Your task to perform on an android device: open a bookmark in the chrome app Image 0: 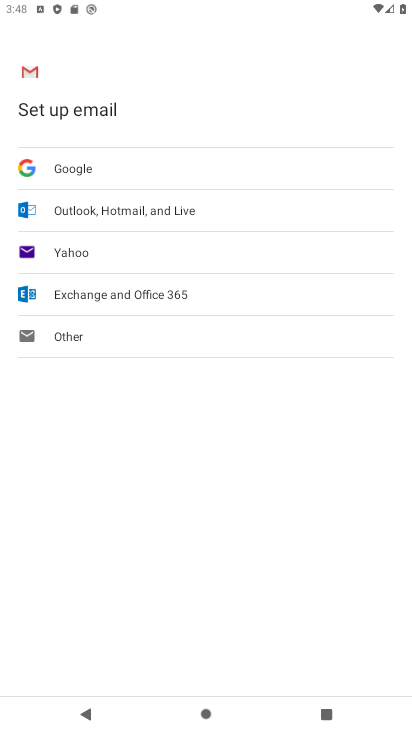
Step 0: press home button
Your task to perform on an android device: open a bookmark in the chrome app Image 1: 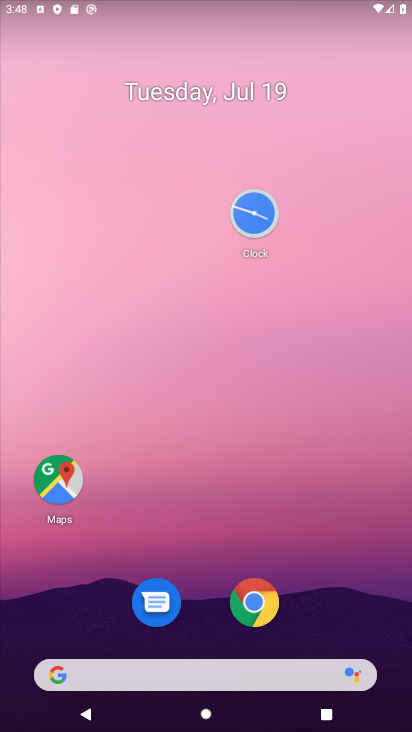
Step 1: click (260, 594)
Your task to perform on an android device: open a bookmark in the chrome app Image 2: 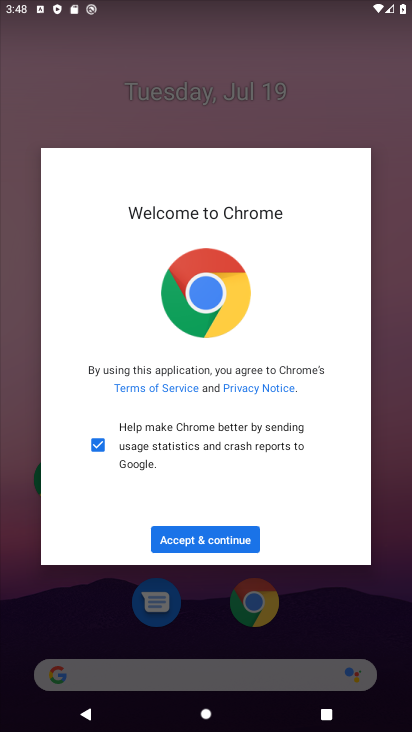
Step 2: click (231, 541)
Your task to perform on an android device: open a bookmark in the chrome app Image 3: 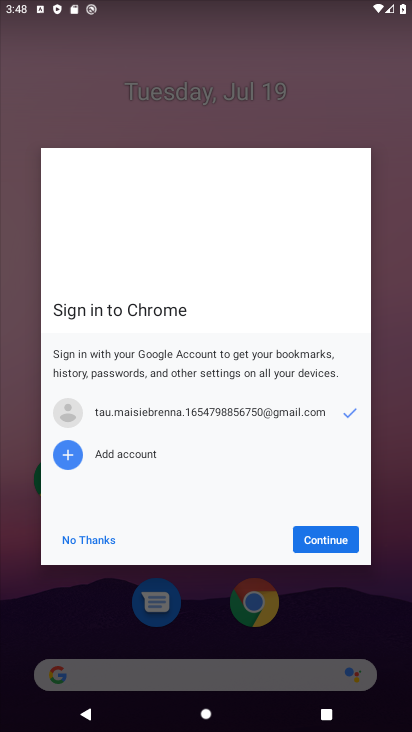
Step 3: click (344, 531)
Your task to perform on an android device: open a bookmark in the chrome app Image 4: 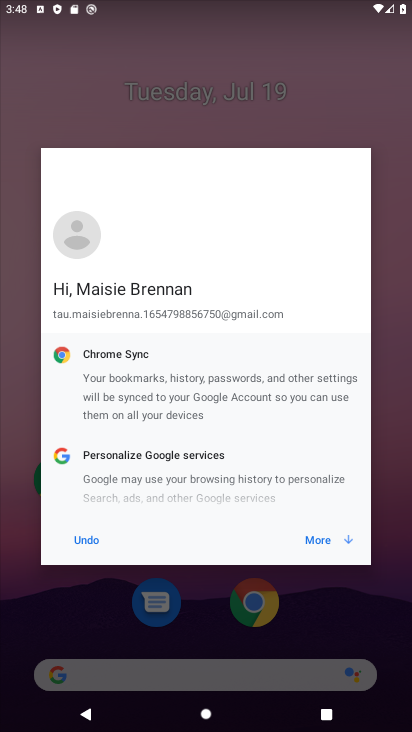
Step 4: click (318, 537)
Your task to perform on an android device: open a bookmark in the chrome app Image 5: 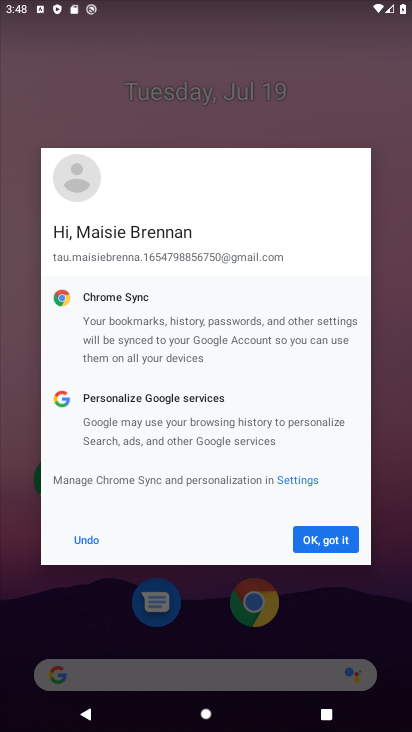
Step 5: click (318, 537)
Your task to perform on an android device: open a bookmark in the chrome app Image 6: 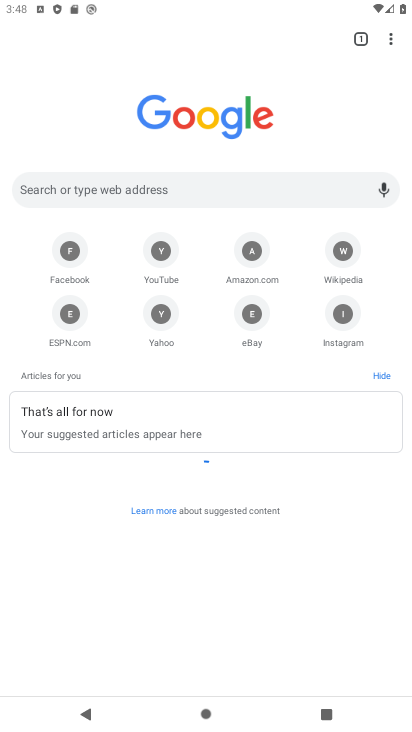
Step 6: click (388, 27)
Your task to perform on an android device: open a bookmark in the chrome app Image 7: 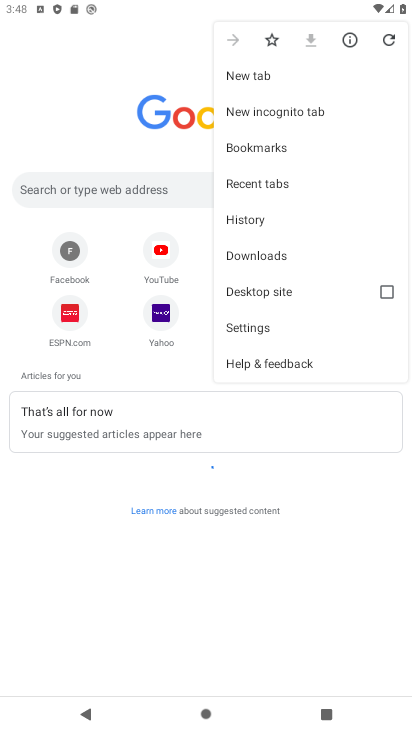
Step 7: click (261, 140)
Your task to perform on an android device: open a bookmark in the chrome app Image 8: 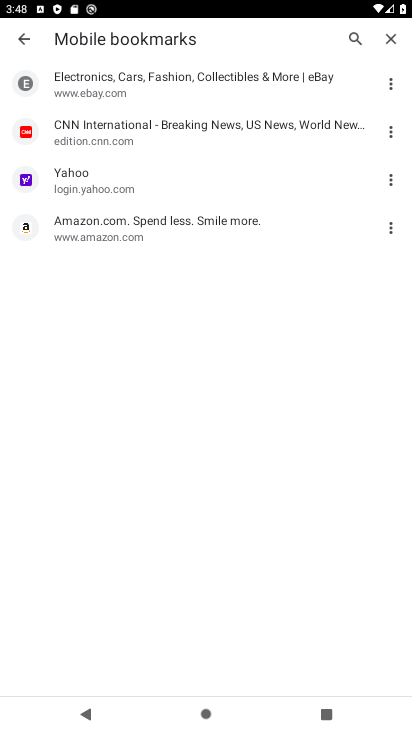
Step 8: task complete